Your task to perform on an android device: add a label to a message in the gmail app Image 0: 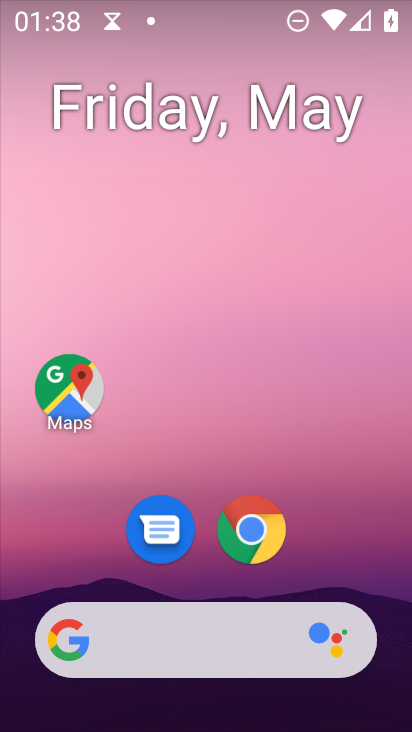
Step 0: drag from (296, 435) to (270, 170)
Your task to perform on an android device: add a label to a message in the gmail app Image 1: 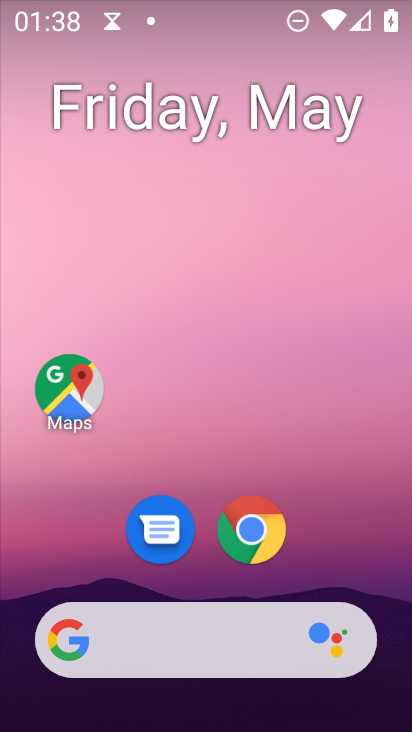
Step 1: drag from (267, 438) to (257, 233)
Your task to perform on an android device: add a label to a message in the gmail app Image 2: 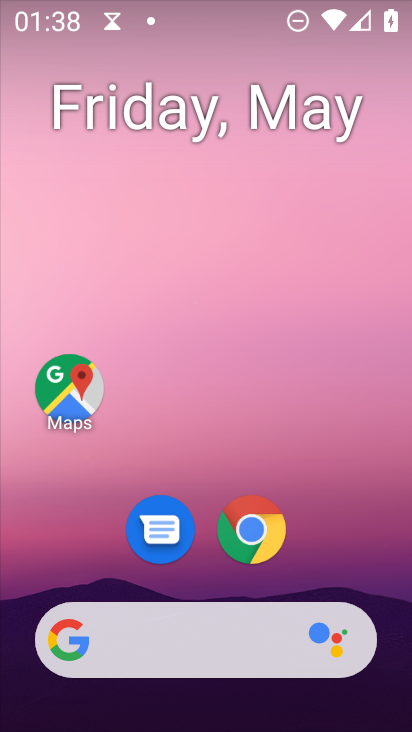
Step 2: drag from (210, 601) to (206, 220)
Your task to perform on an android device: add a label to a message in the gmail app Image 3: 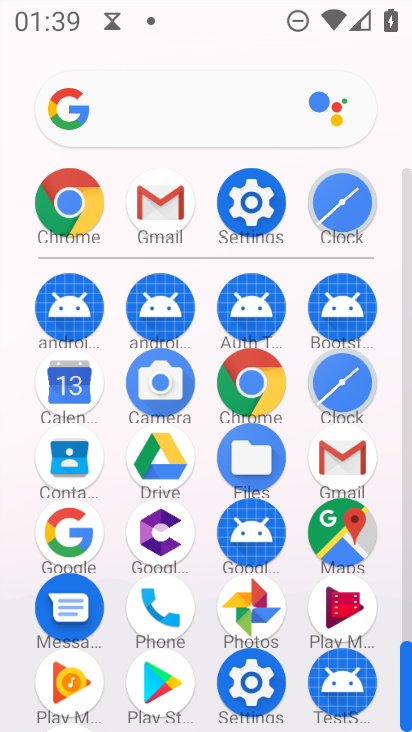
Step 3: click (326, 458)
Your task to perform on an android device: add a label to a message in the gmail app Image 4: 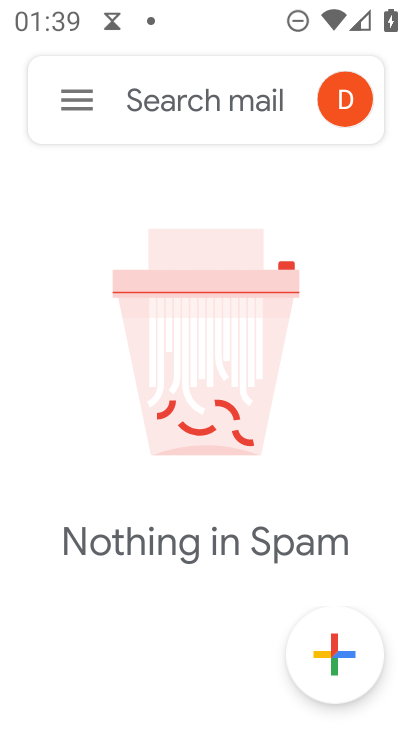
Step 4: click (70, 86)
Your task to perform on an android device: add a label to a message in the gmail app Image 5: 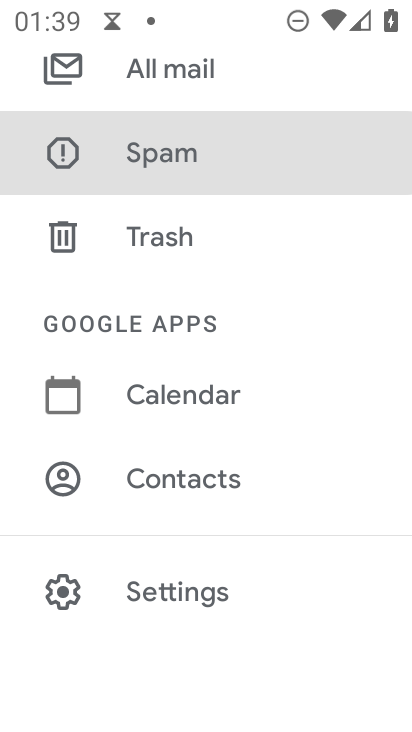
Step 5: click (197, 81)
Your task to perform on an android device: add a label to a message in the gmail app Image 6: 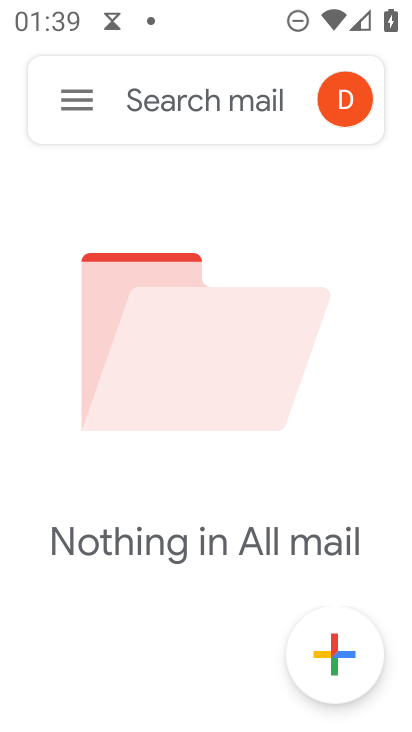
Step 6: click (68, 103)
Your task to perform on an android device: add a label to a message in the gmail app Image 7: 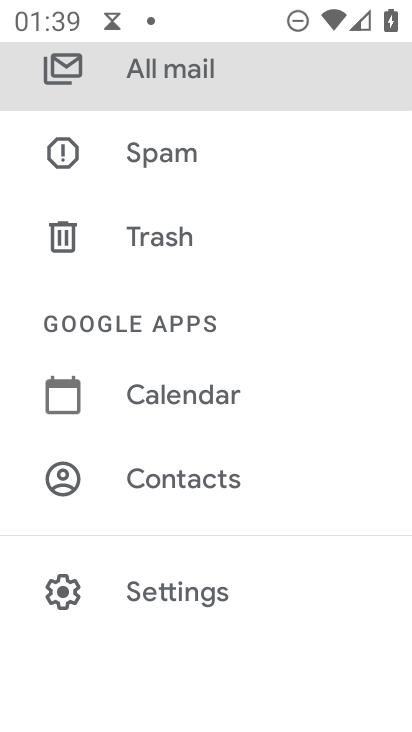
Step 7: click (167, 73)
Your task to perform on an android device: add a label to a message in the gmail app Image 8: 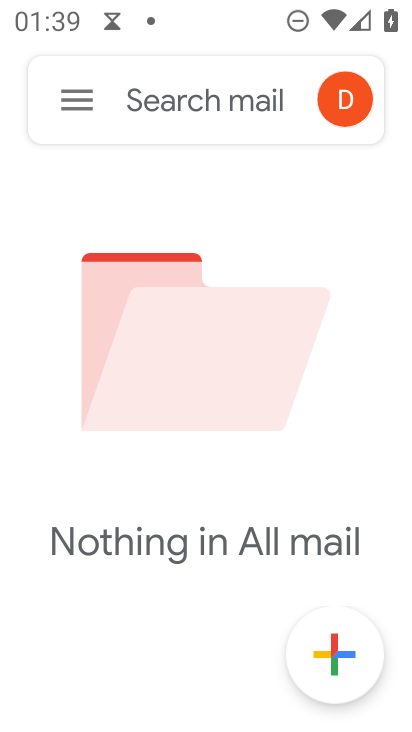
Step 8: task complete